Your task to perform on an android device: toggle javascript in the chrome app Image 0: 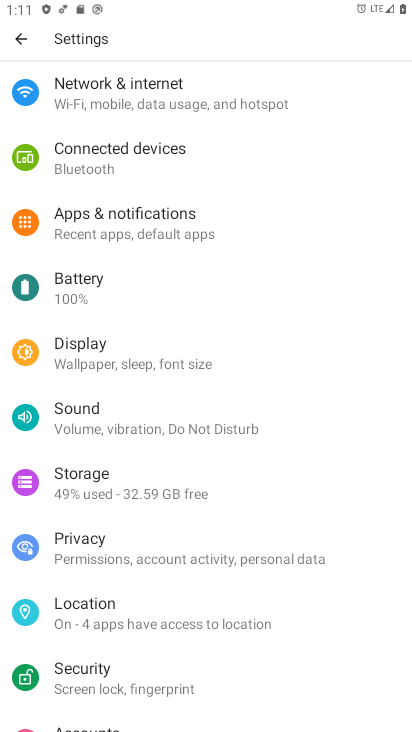
Step 0: press home button
Your task to perform on an android device: toggle javascript in the chrome app Image 1: 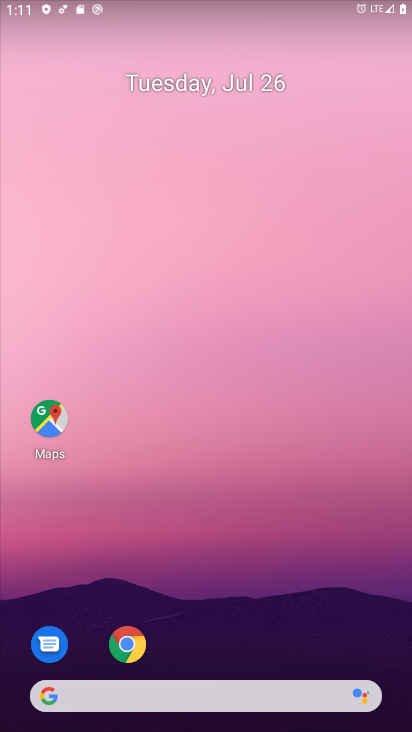
Step 1: click (138, 644)
Your task to perform on an android device: toggle javascript in the chrome app Image 2: 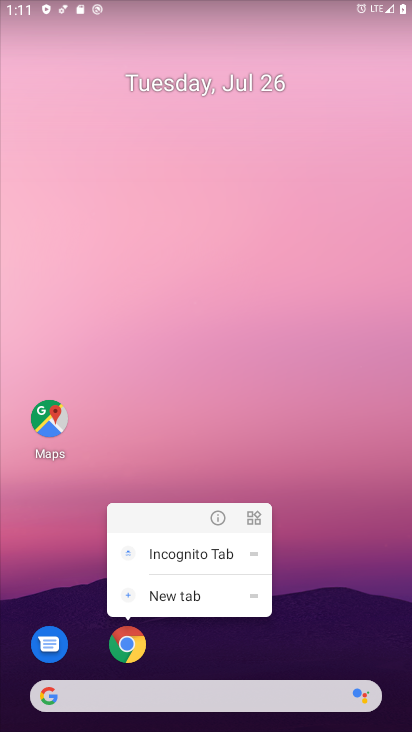
Step 2: click (132, 654)
Your task to perform on an android device: toggle javascript in the chrome app Image 3: 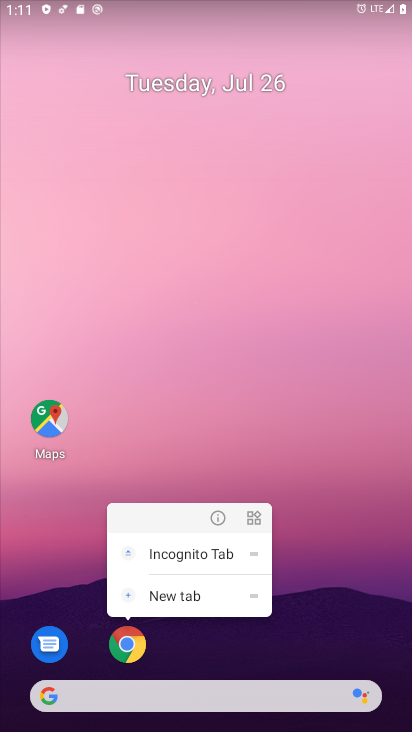
Step 3: click (132, 654)
Your task to perform on an android device: toggle javascript in the chrome app Image 4: 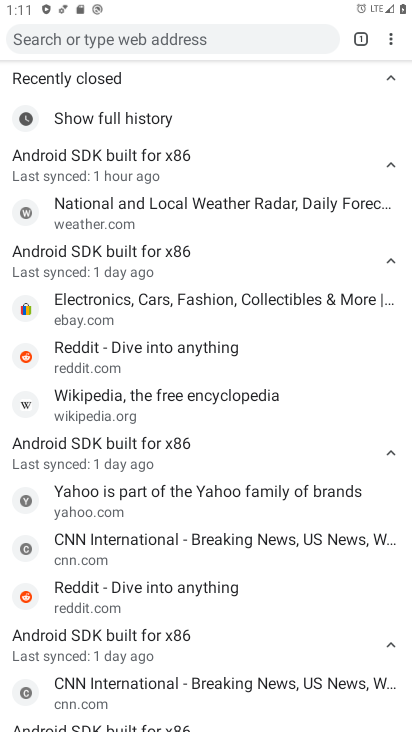
Step 4: click (386, 34)
Your task to perform on an android device: toggle javascript in the chrome app Image 5: 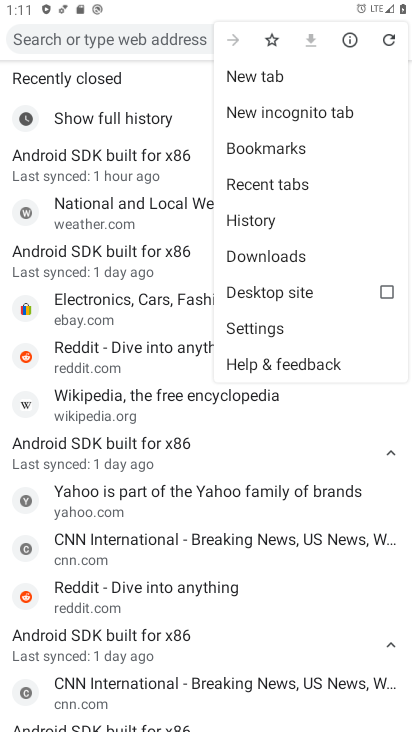
Step 5: click (286, 327)
Your task to perform on an android device: toggle javascript in the chrome app Image 6: 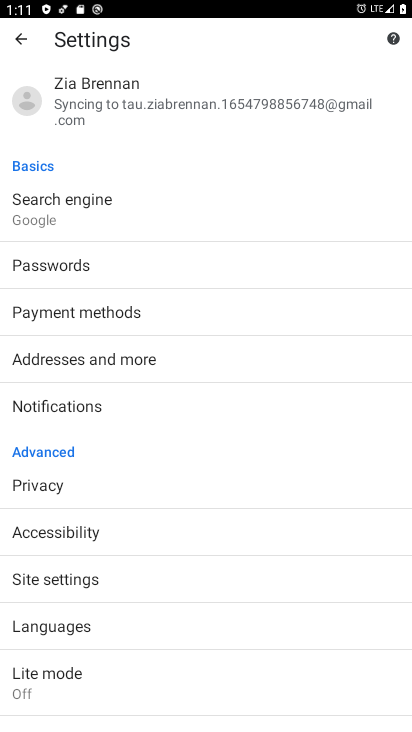
Step 6: click (66, 587)
Your task to perform on an android device: toggle javascript in the chrome app Image 7: 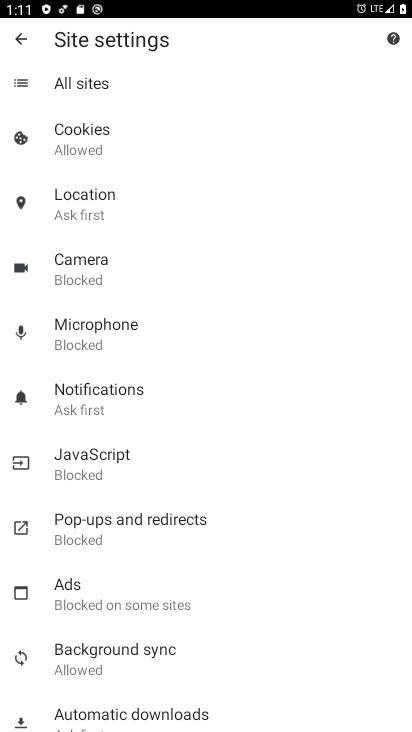
Step 7: click (110, 476)
Your task to perform on an android device: toggle javascript in the chrome app Image 8: 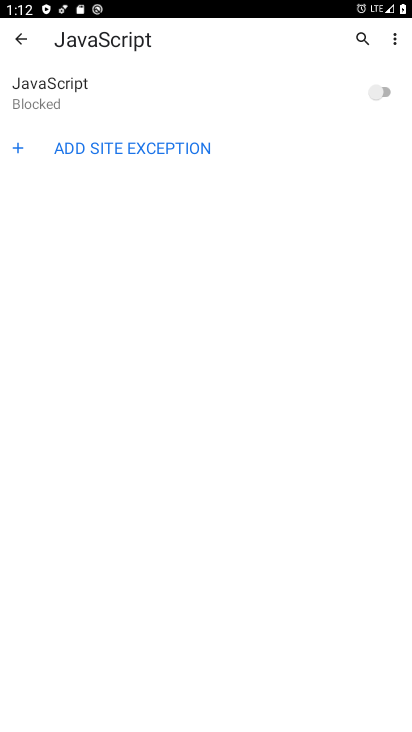
Step 8: click (375, 95)
Your task to perform on an android device: toggle javascript in the chrome app Image 9: 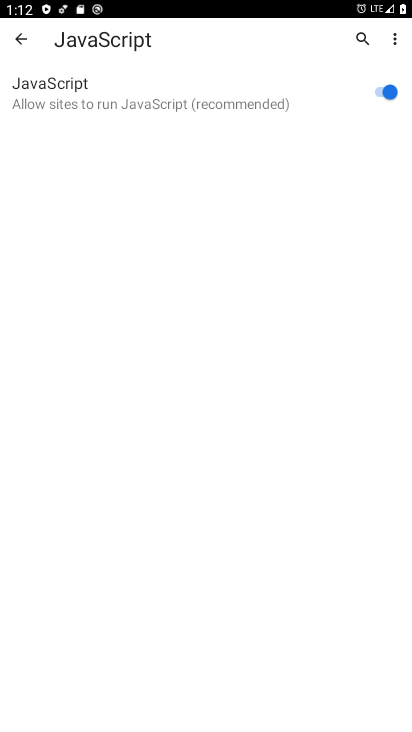
Step 9: task complete